Your task to perform on an android device: change notifications settings Image 0: 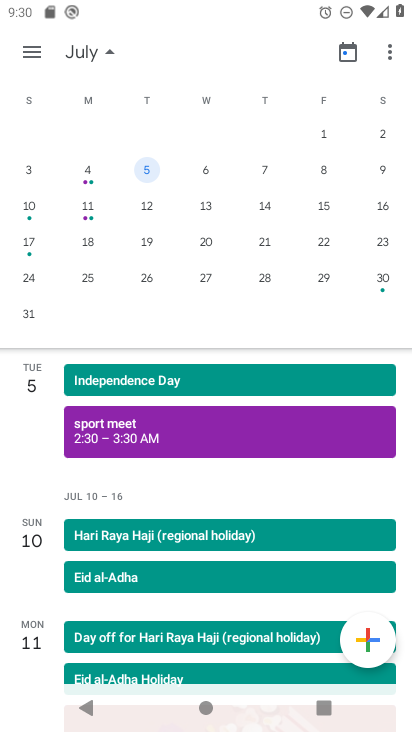
Step 0: press home button
Your task to perform on an android device: change notifications settings Image 1: 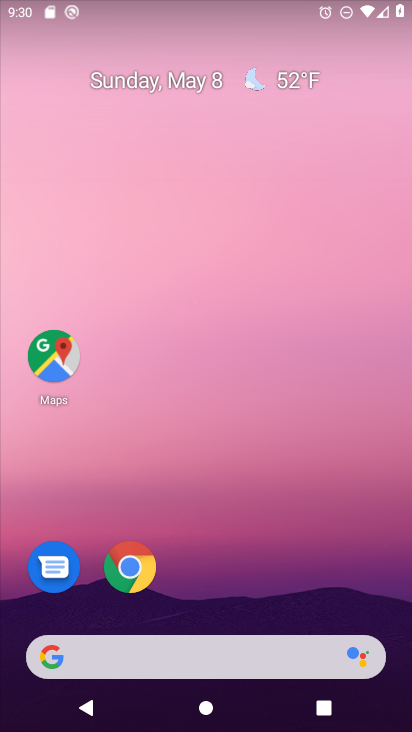
Step 1: drag from (325, 602) to (306, 153)
Your task to perform on an android device: change notifications settings Image 2: 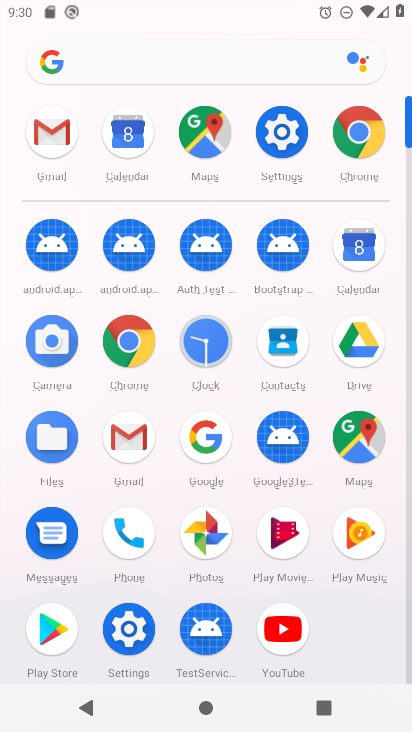
Step 2: click (277, 132)
Your task to perform on an android device: change notifications settings Image 3: 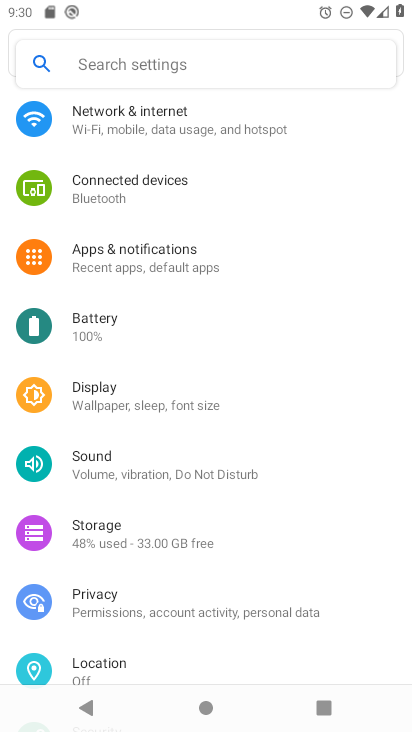
Step 3: drag from (286, 252) to (267, 605)
Your task to perform on an android device: change notifications settings Image 4: 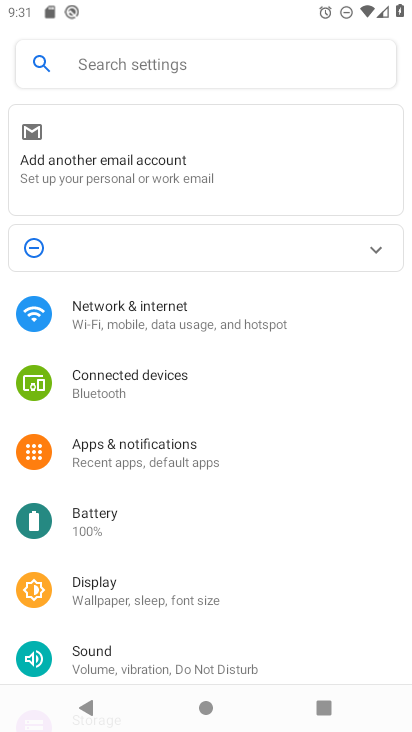
Step 4: click (173, 441)
Your task to perform on an android device: change notifications settings Image 5: 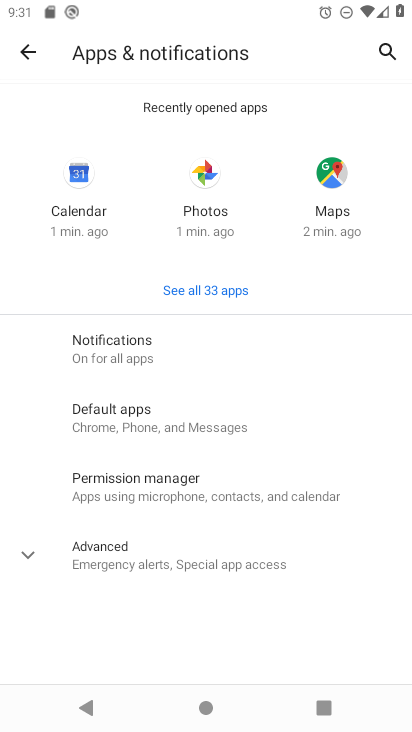
Step 5: click (121, 342)
Your task to perform on an android device: change notifications settings Image 6: 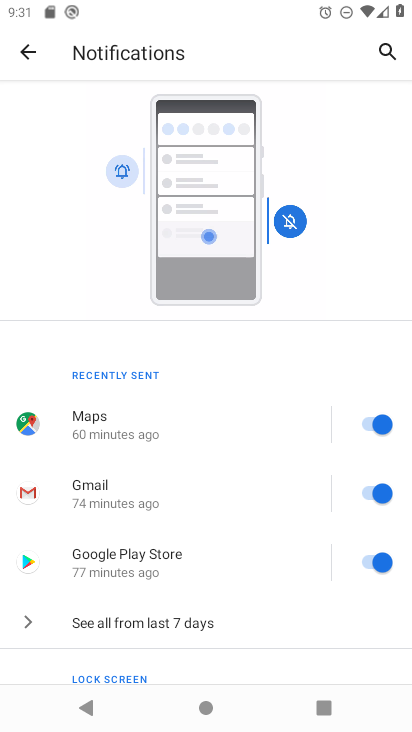
Step 6: drag from (217, 684) to (261, 213)
Your task to perform on an android device: change notifications settings Image 7: 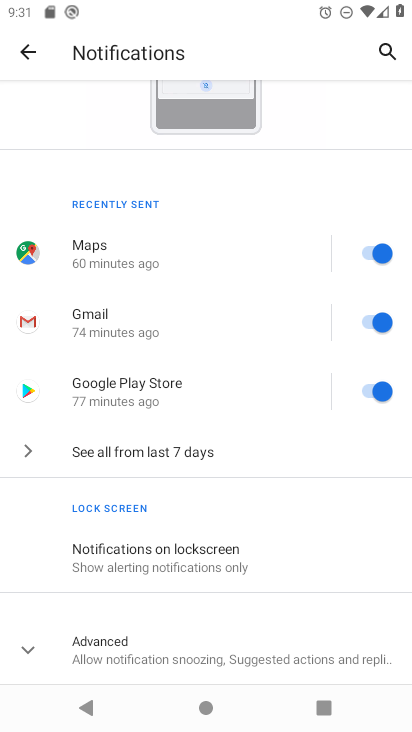
Step 7: drag from (207, 500) to (201, 192)
Your task to perform on an android device: change notifications settings Image 8: 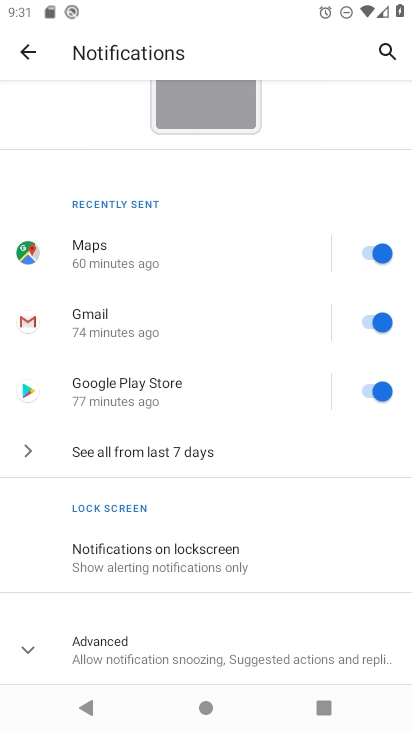
Step 8: click (200, 663)
Your task to perform on an android device: change notifications settings Image 9: 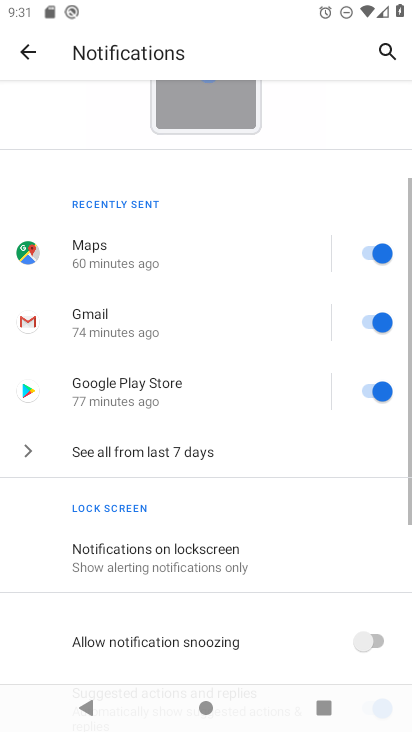
Step 9: drag from (200, 621) to (175, 239)
Your task to perform on an android device: change notifications settings Image 10: 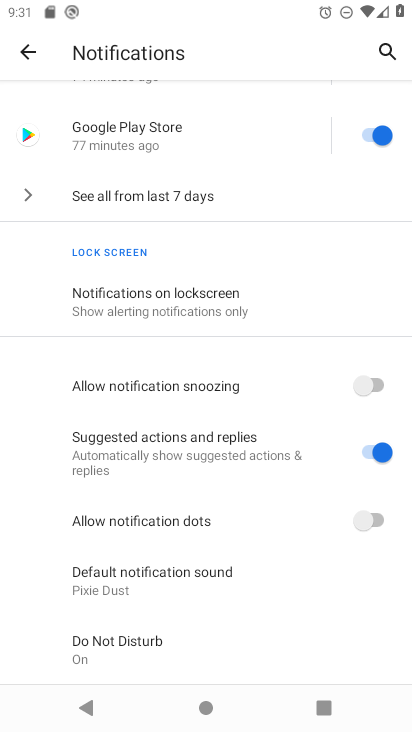
Step 10: drag from (194, 624) to (204, 241)
Your task to perform on an android device: change notifications settings Image 11: 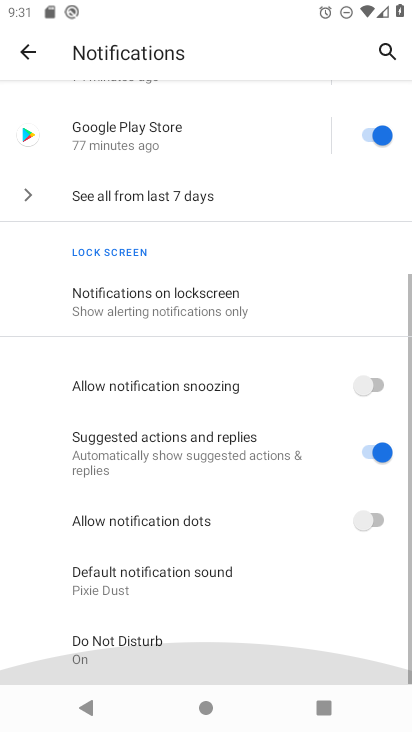
Step 11: drag from (200, 285) to (210, 693)
Your task to perform on an android device: change notifications settings Image 12: 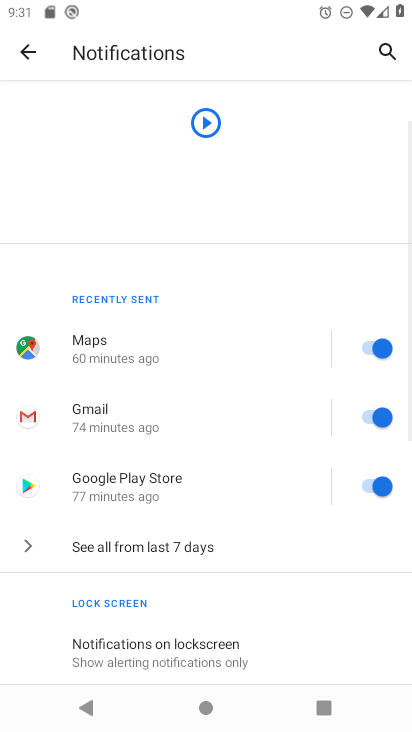
Step 12: drag from (150, 221) to (186, 654)
Your task to perform on an android device: change notifications settings Image 13: 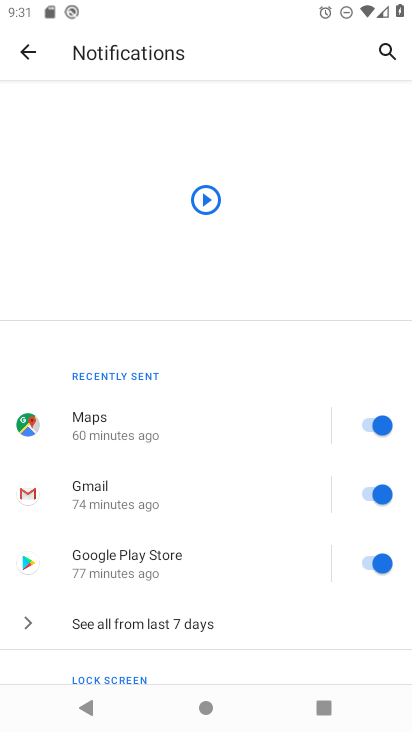
Step 13: click (378, 417)
Your task to perform on an android device: change notifications settings Image 14: 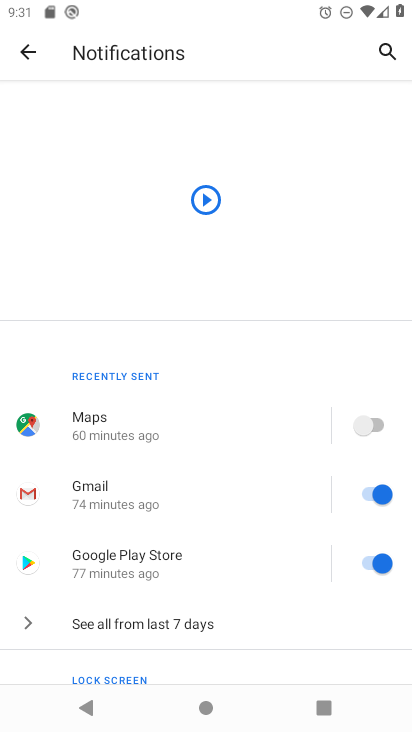
Step 14: task complete